Your task to perform on an android device: open device folders in google photos Image 0: 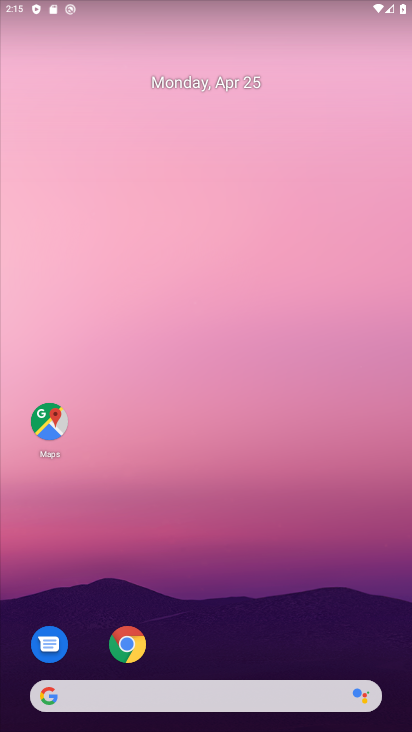
Step 0: drag from (188, 612) to (193, 196)
Your task to perform on an android device: open device folders in google photos Image 1: 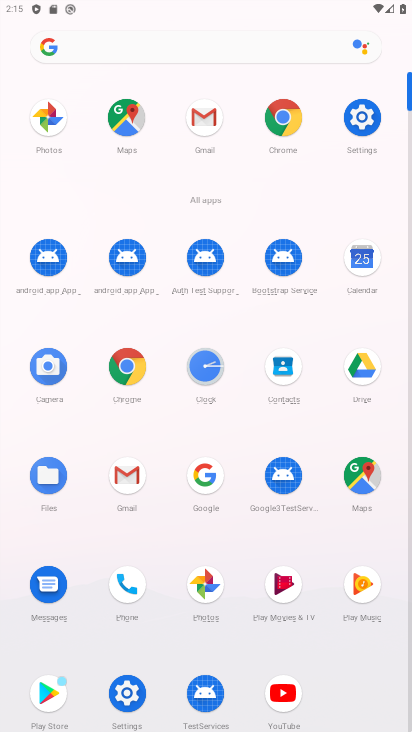
Step 1: click (205, 580)
Your task to perform on an android device: open device folders in google photos Image 2: 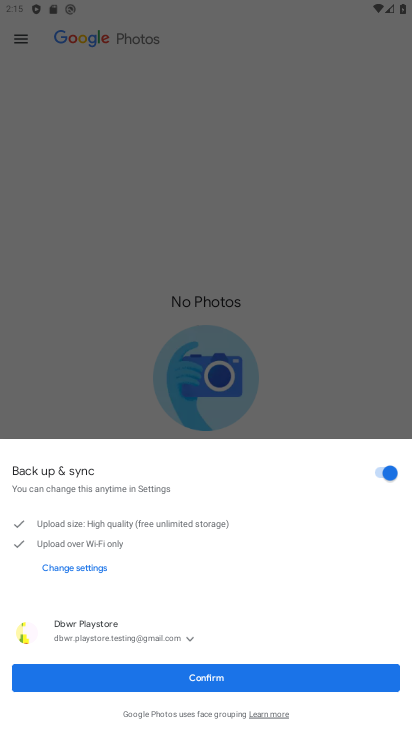
Step 2: click (214, 668)
Your task to perform on an android device: open device folders in google photos Image 3: 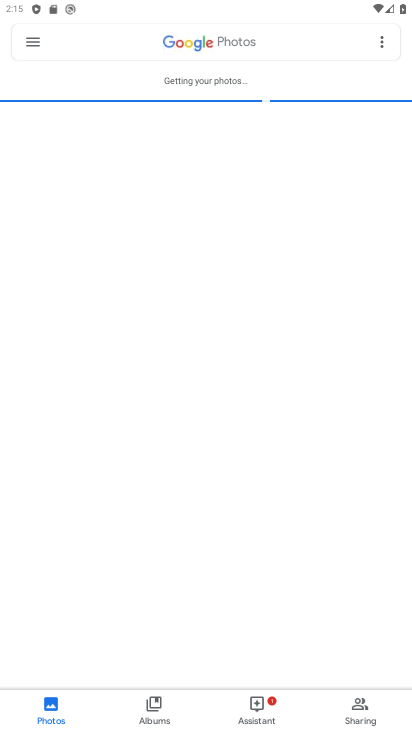
Step 3: click (33, 50)
Your task to perform on an android device: open device folders in google photos Image 4: 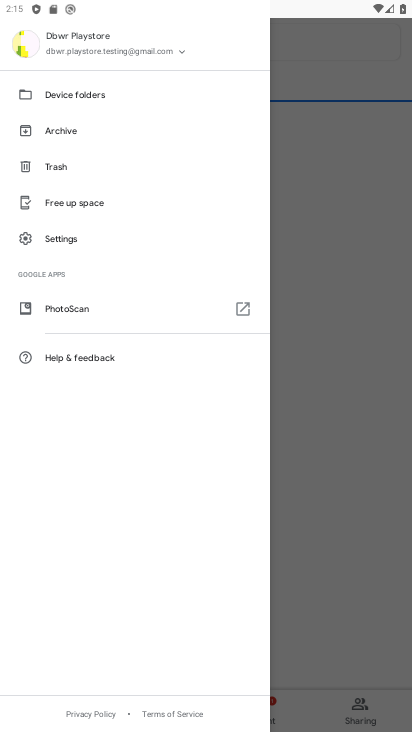
Step 4: click (64, 88)
Your task to perform on an android device: open device folders in google photos Image 5: 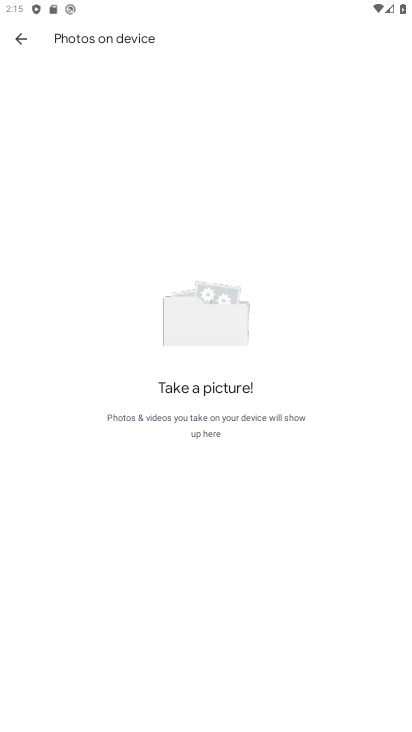
Step 5: task complete